Your task to perform on an android device: open wifi settings Image 0: 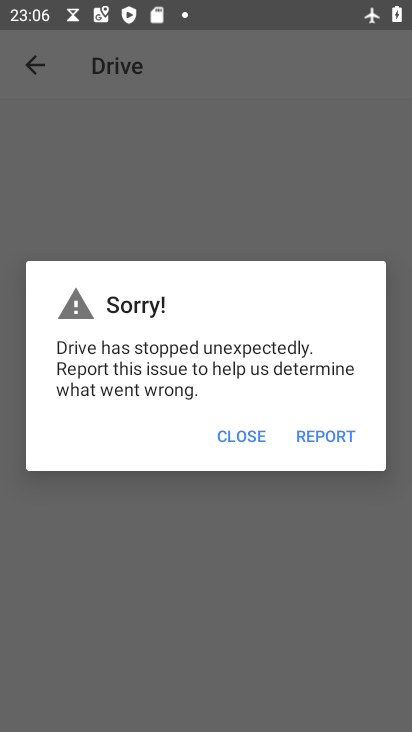
Step 0: press back button
Your task to perform on an android device: open wifi settings Image 1: 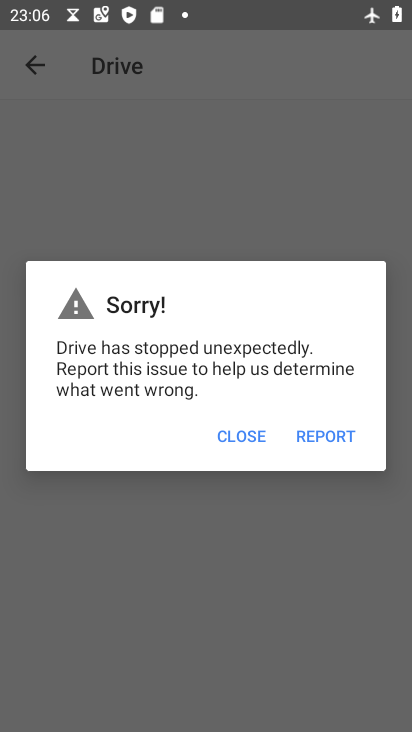
Step 1: press back button
Your task to perform on an android device: open wifi settings Image 2: 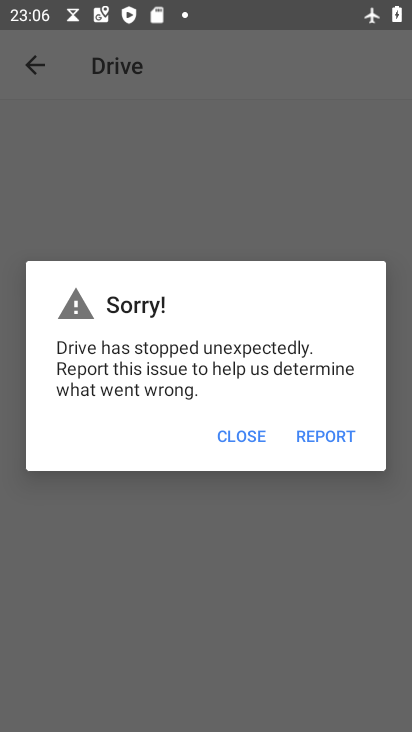
Step 2: press home button
Your task to perform on an android device: open wifi settings Image 3: 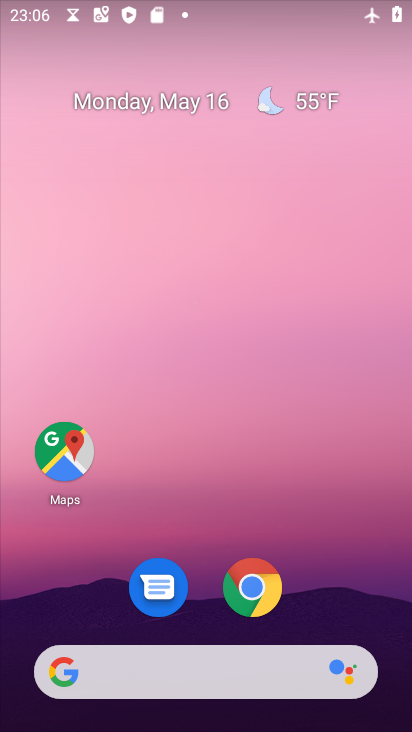
Step 3: drag from (345, 573) to (248, 4)
Your task to perform on an android device: open wifi settings Image 4: 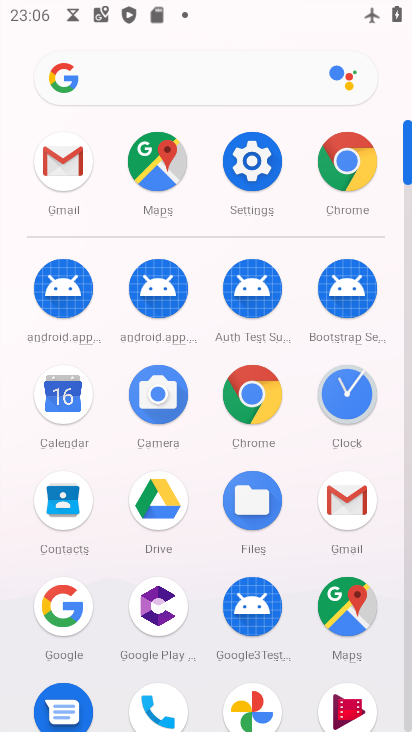
Step 4: click (252, 157)
Your task to perform on an android device: open wifi settings Image 5: 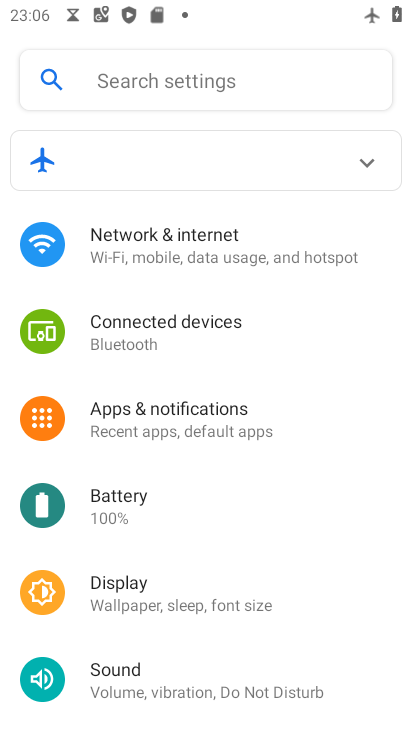
Step 5: click (232, 232)
Your task to perform on an android device: open wifi settings Image 6: 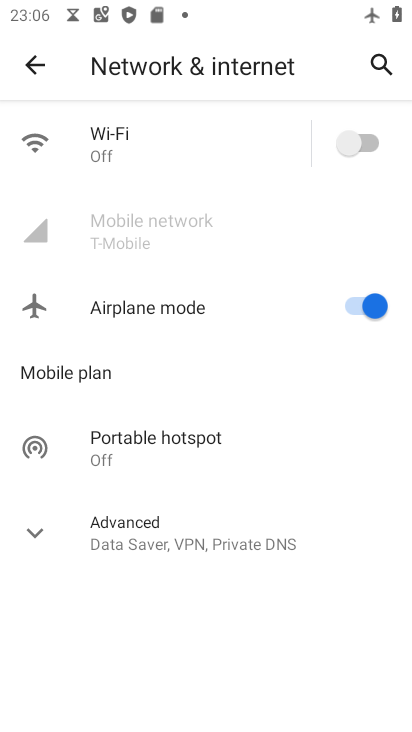
Step 6: click (146, 142)
Your task to perform on an android device: open wifi settings Image 7: 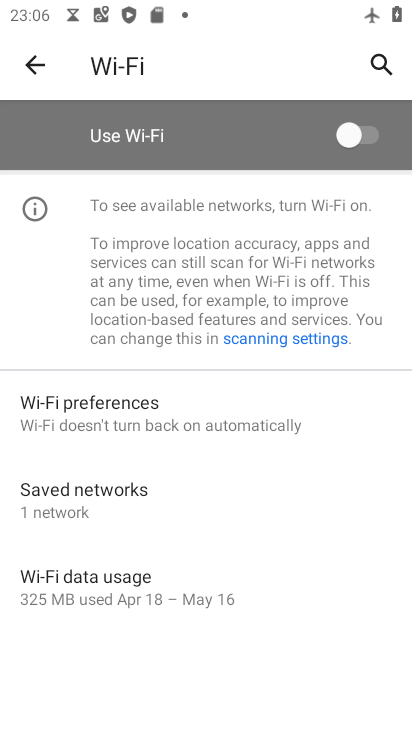
Step 7: task complete